Your task to perform on an android device: open app "WhatsApp Messenger" (install if not already installed), go to login, and select forgot password Image 0: 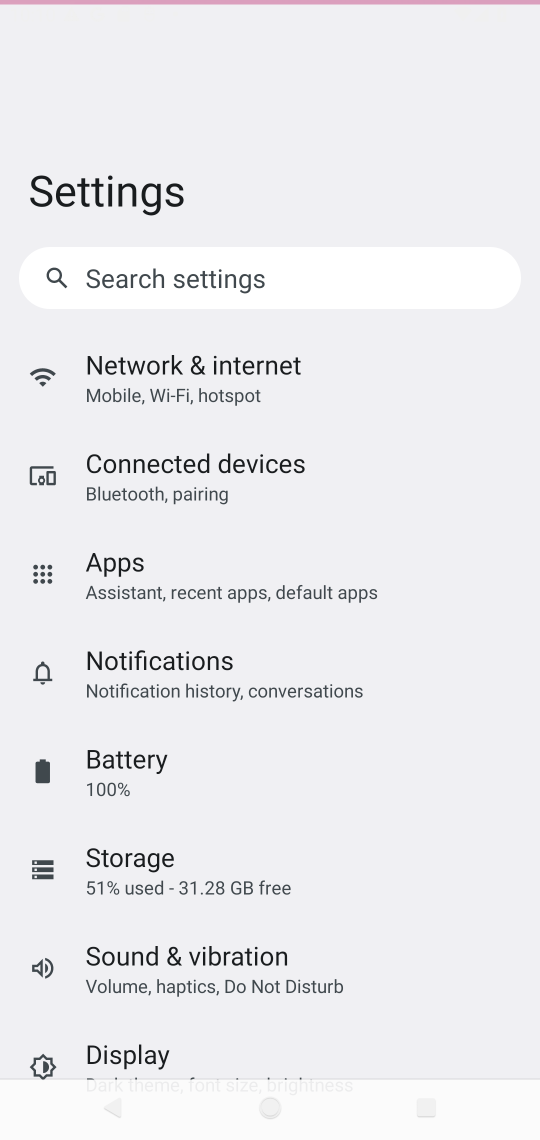
Step 0: press home button
Your task to perform on an android device: open app "WhatsApp Messenger" (install if not already installed), go to login, and select forgot password Image 1: 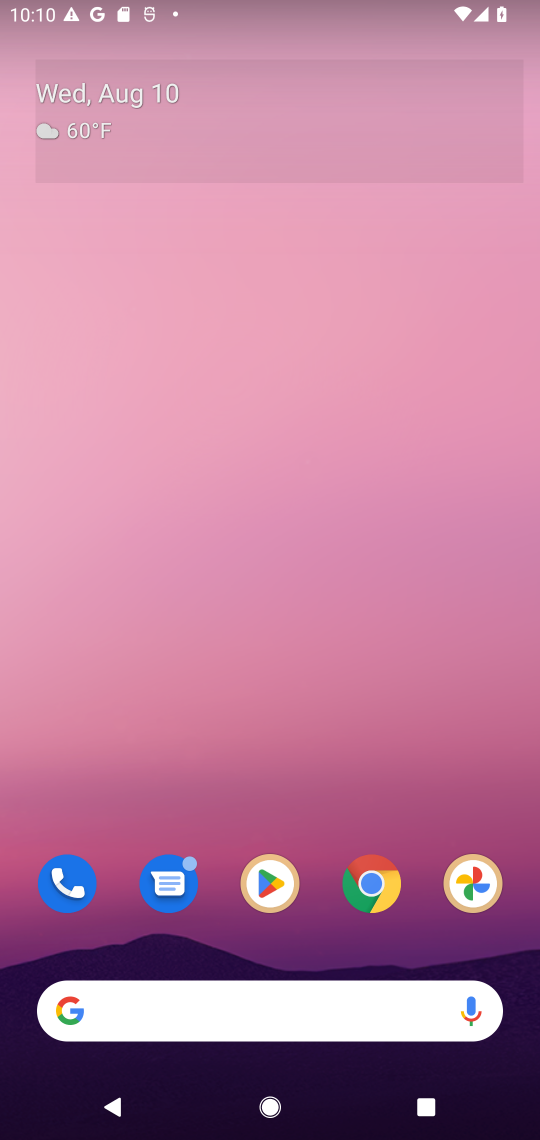
Step 1: drag from (418, 674) to (390, 116)
Your task to perform on an android device: open app "WhatsApp Messenger" (install if not already installed), go to login, and select forgot password Image 2: 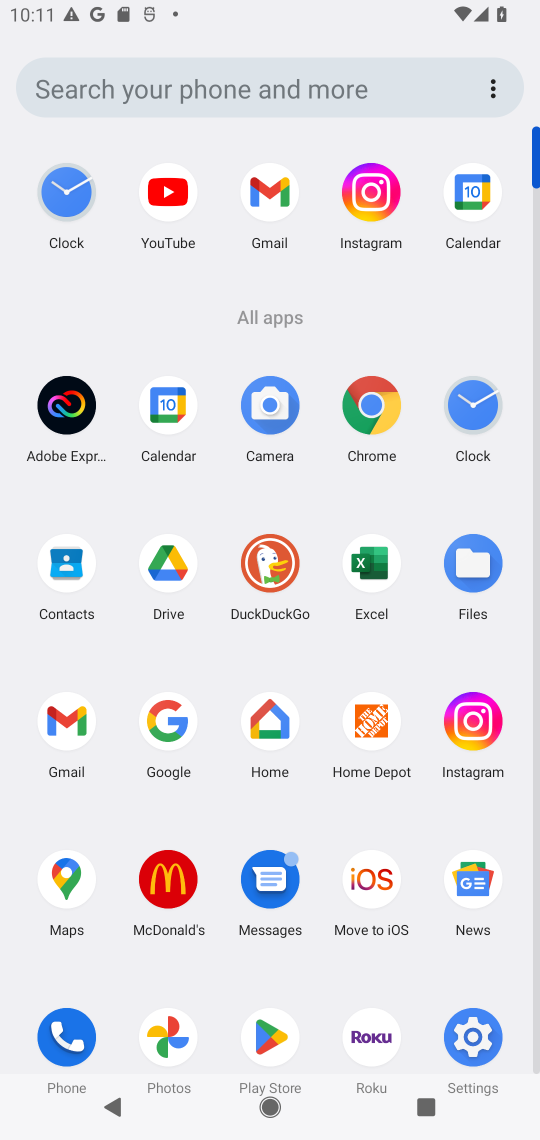
Step 2: click (265, 1034)
Your task to perform on an android device: open app "WhatsApp Messenger" (install if not already installed), go to login, and select forgot password Image 3: 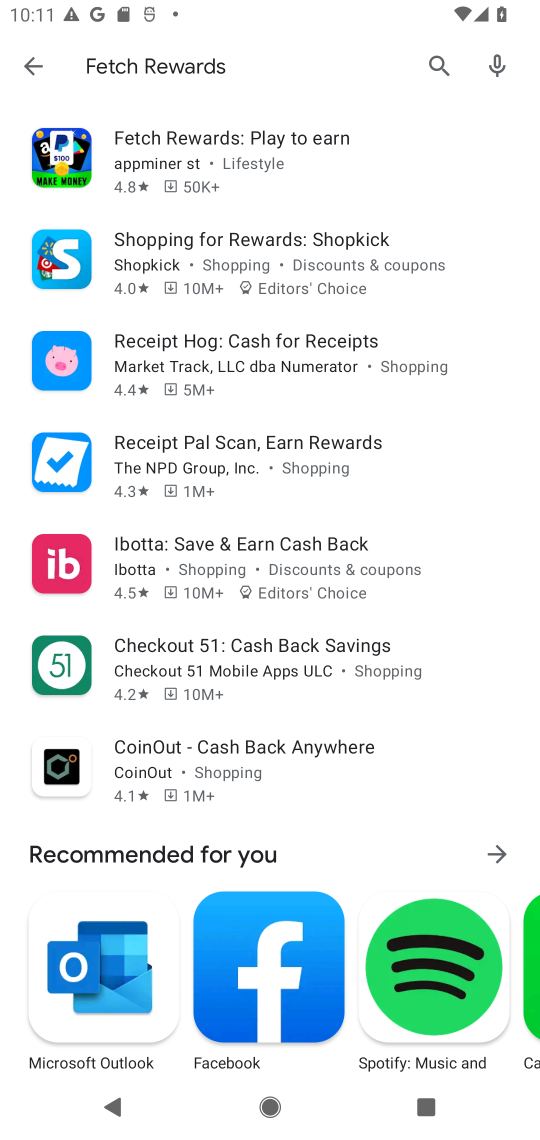
Step 3: click (431, 70)
Your task to perform on an android device: open app "WhatsApp Messenger" (install if not already installed), go to login, and select forgot password Image 4: 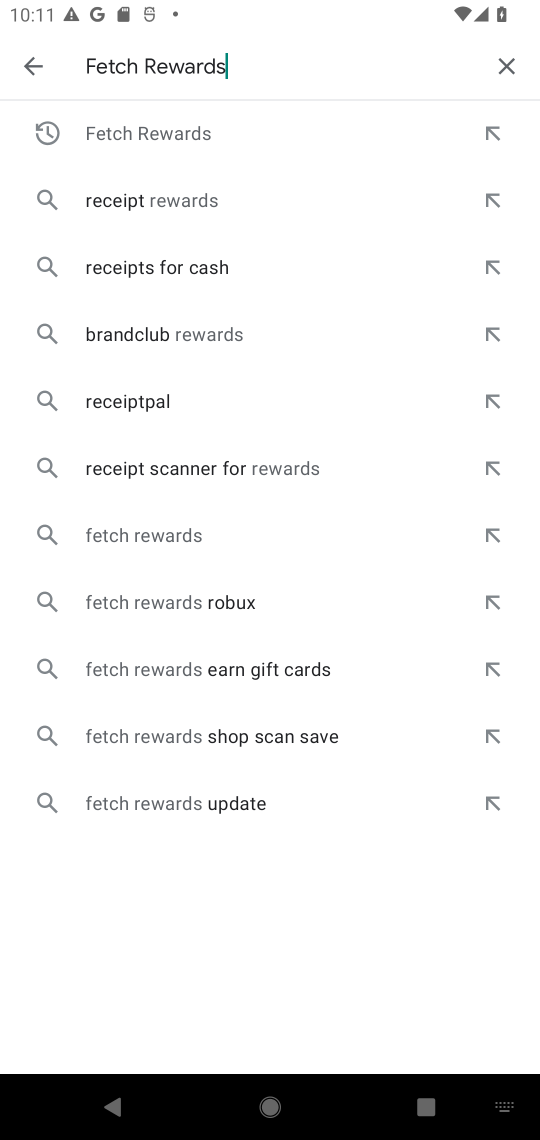
Step 4: click (505, 52)
Your task to perform on an android device: open app "WhatsApp Messenger" (install if not already installed), go to login, and select forgot password Image 5: 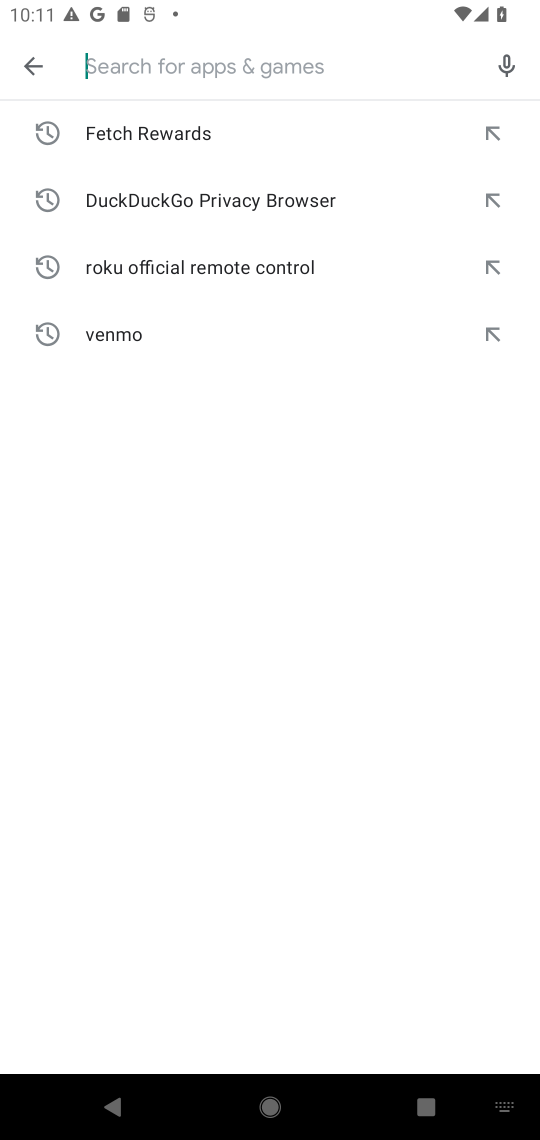
Step 5: type "WhatsApp Messenger"
Your task to perform on an android device: open app "WhatsApp Messenger" (install if not already installed), go to login, and select forgot password Image 6: 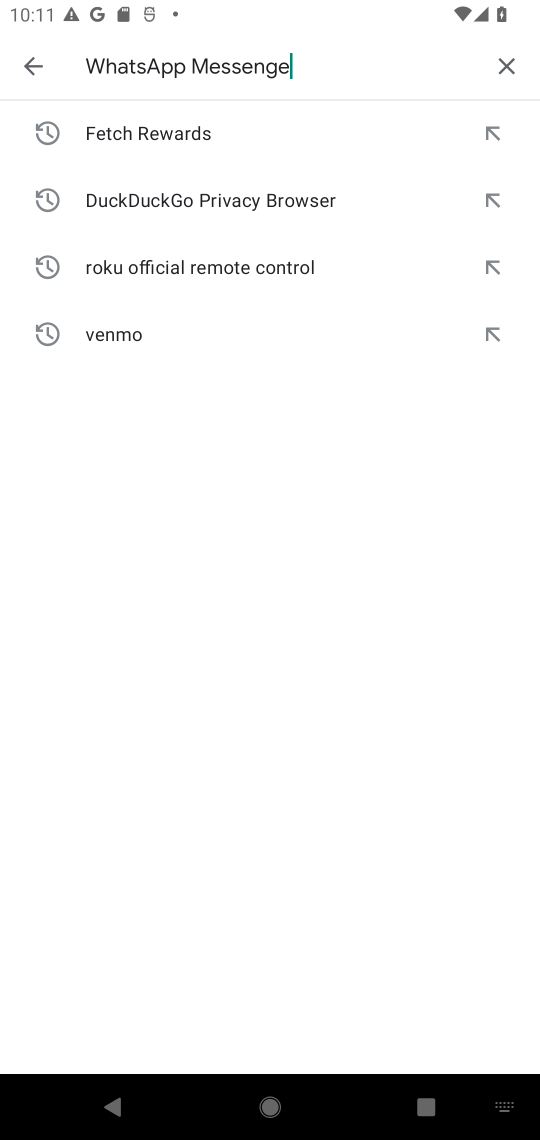
Step 6: press enter
Your task to perform on an android device: open app "WhatsApp Messenger" (install if not already installed), go to login, and select forgot password Image 7: 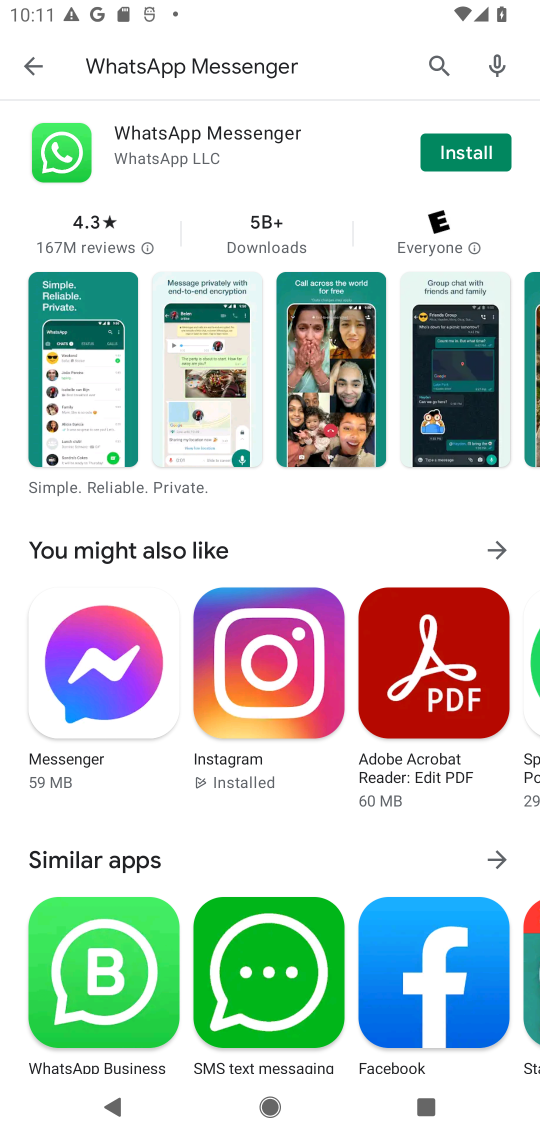
Step 7: click (455, 150)
Your task to perform on an android device: open app "WhatsApp Messenger" (install if not already installed), go to login, and select forgot password Image 8: 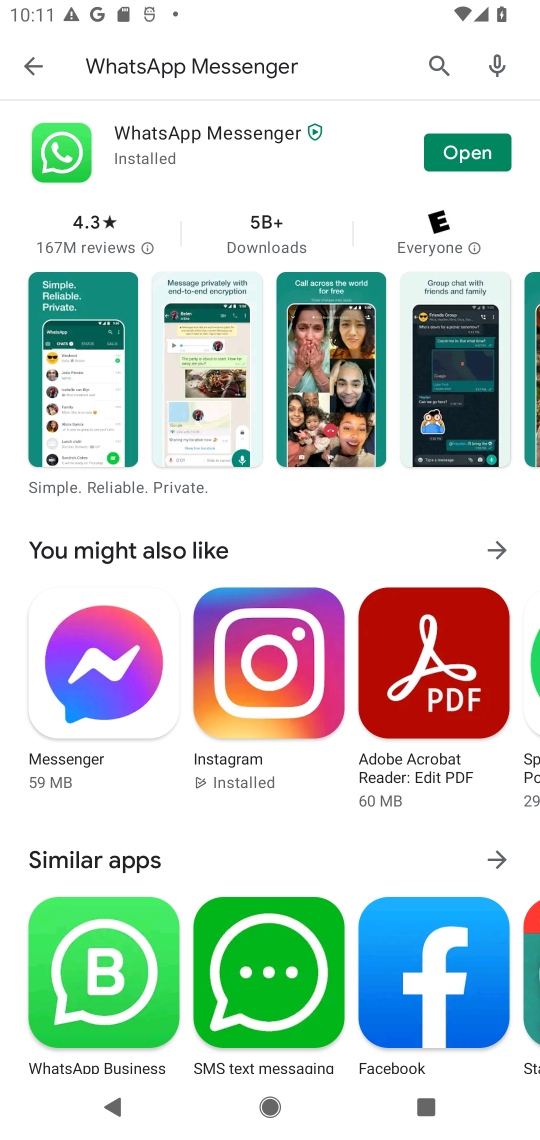
Step 8: click (477, 149)
Your task to perform on an android device: open app "WhatsApp Messenger" (install if not already installed), go to login, and select forgot password Image 9: 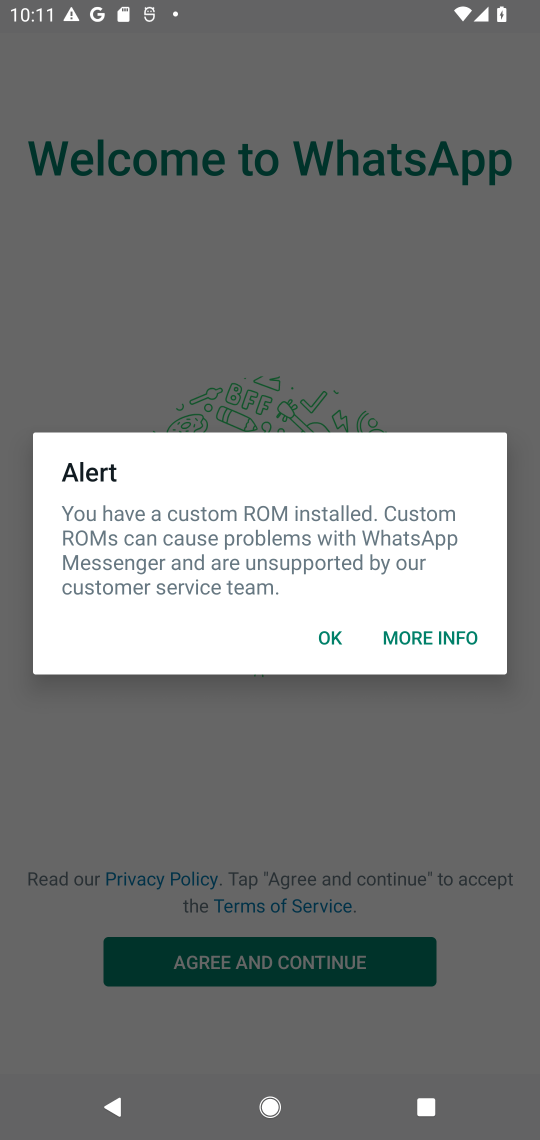
Step 9: click (334, 637)
Your task to perform on an android device: open app "WhatsApp Messenger" (install if not already installed), go to login, and select forgot password Image 10: 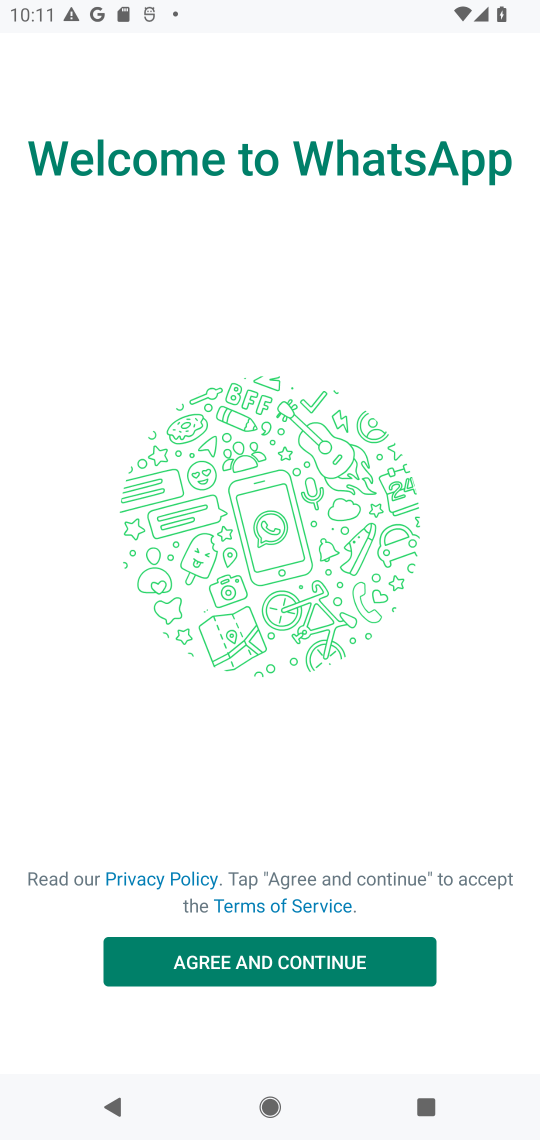
Step 10: click (369, 965)
Your task to perform on an android device: open app "WhatsApp Messenger" (install if not already installed), go to login, and select forgot password Image 11: 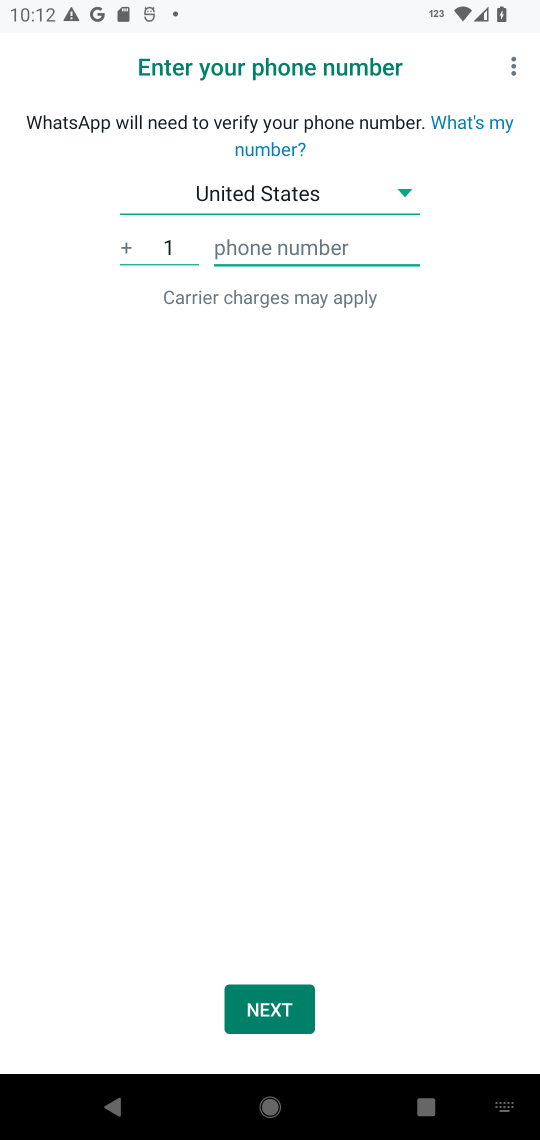
Step 11: task complete